Your task to perform on an android device: Go to settings Image 0: 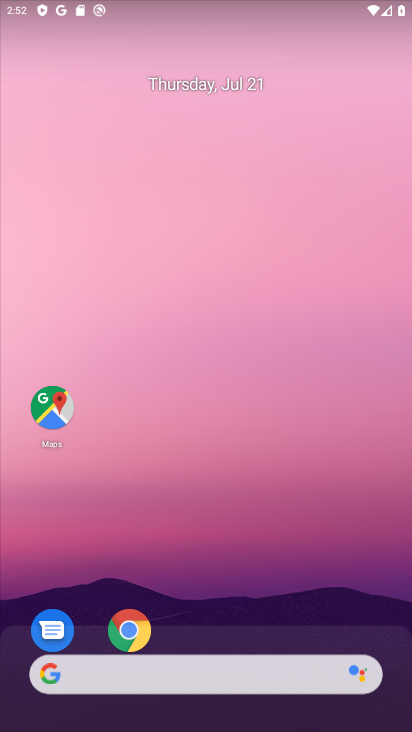
Step 0: drag from (222, 667) to (110, 147)
Your task to perform on an android device: Go to settings Image 1: 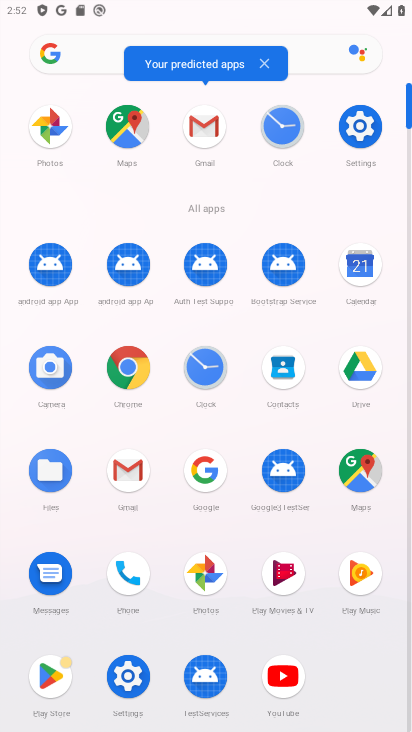
Step 1: click (359, 124)
Your task to perform on an android device: Go to settings Image 2: 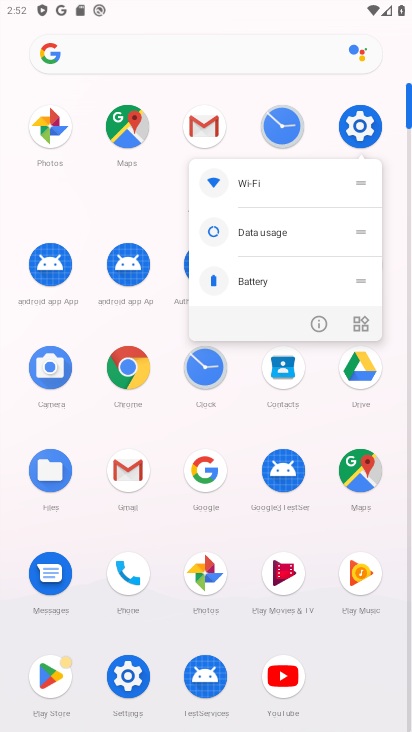
Step 2: click (358, 126)
Your task to perform on an android device: Go to settings Image 3: 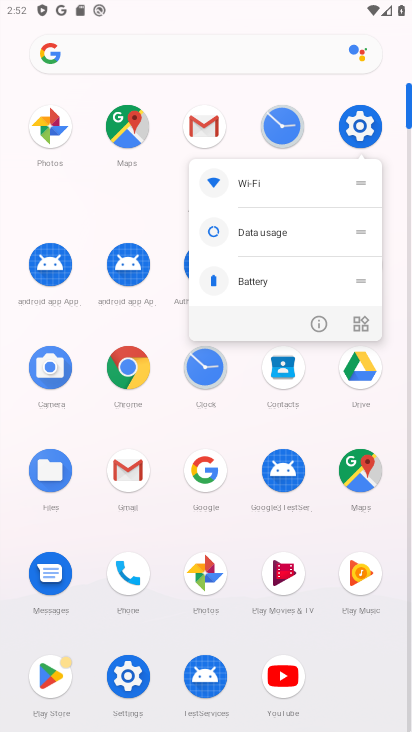
Step 3: click (358, 125)
Your task to perform on an android device: Go to settings Image 4: 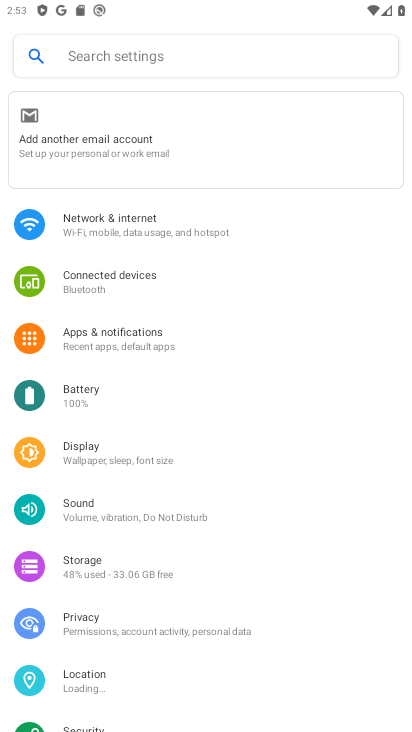
Step 4: task complete